Your task to perform on an android device: open app "Roku - Official Remote Control" Image 0: 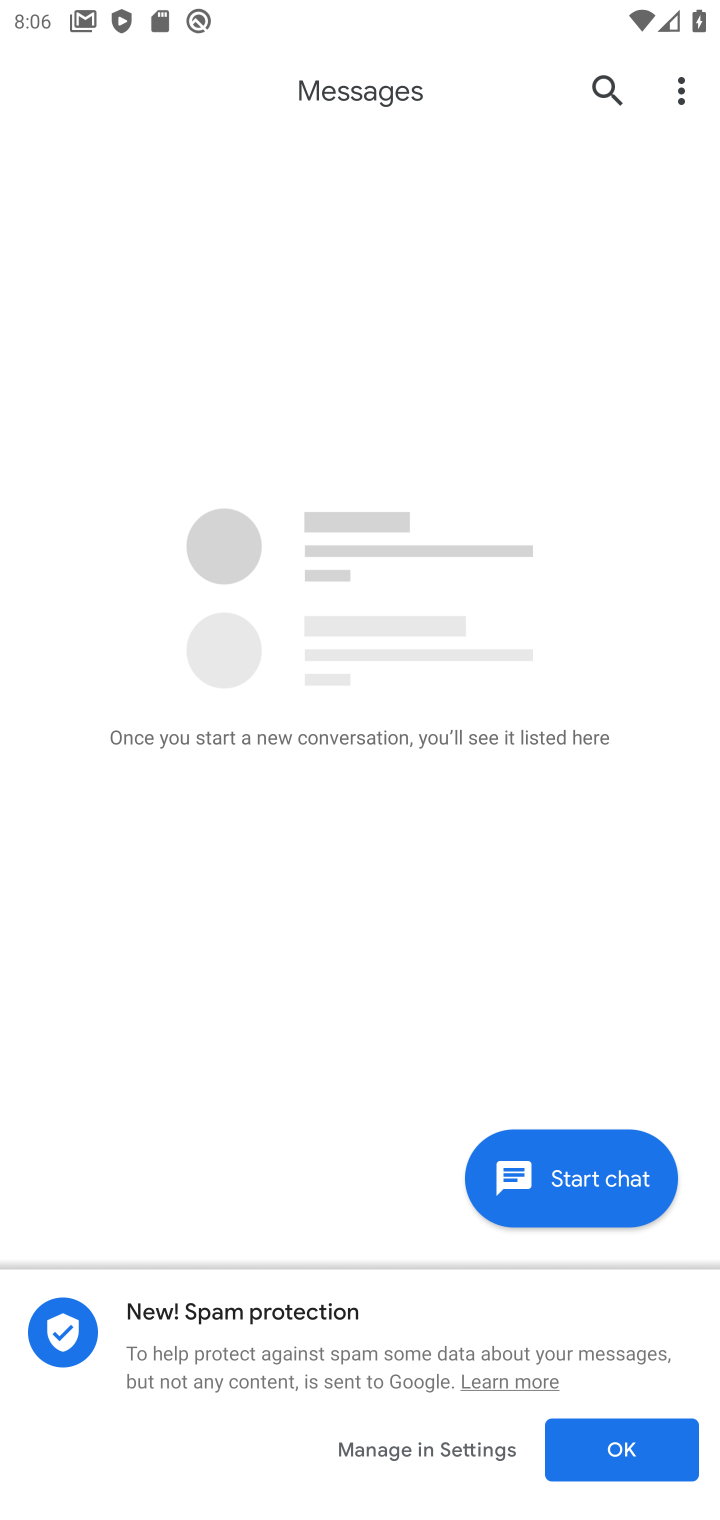
Step 0: press home button
Your task to perform on an android device: open app "Roku - Official Remote Control" Image 1: 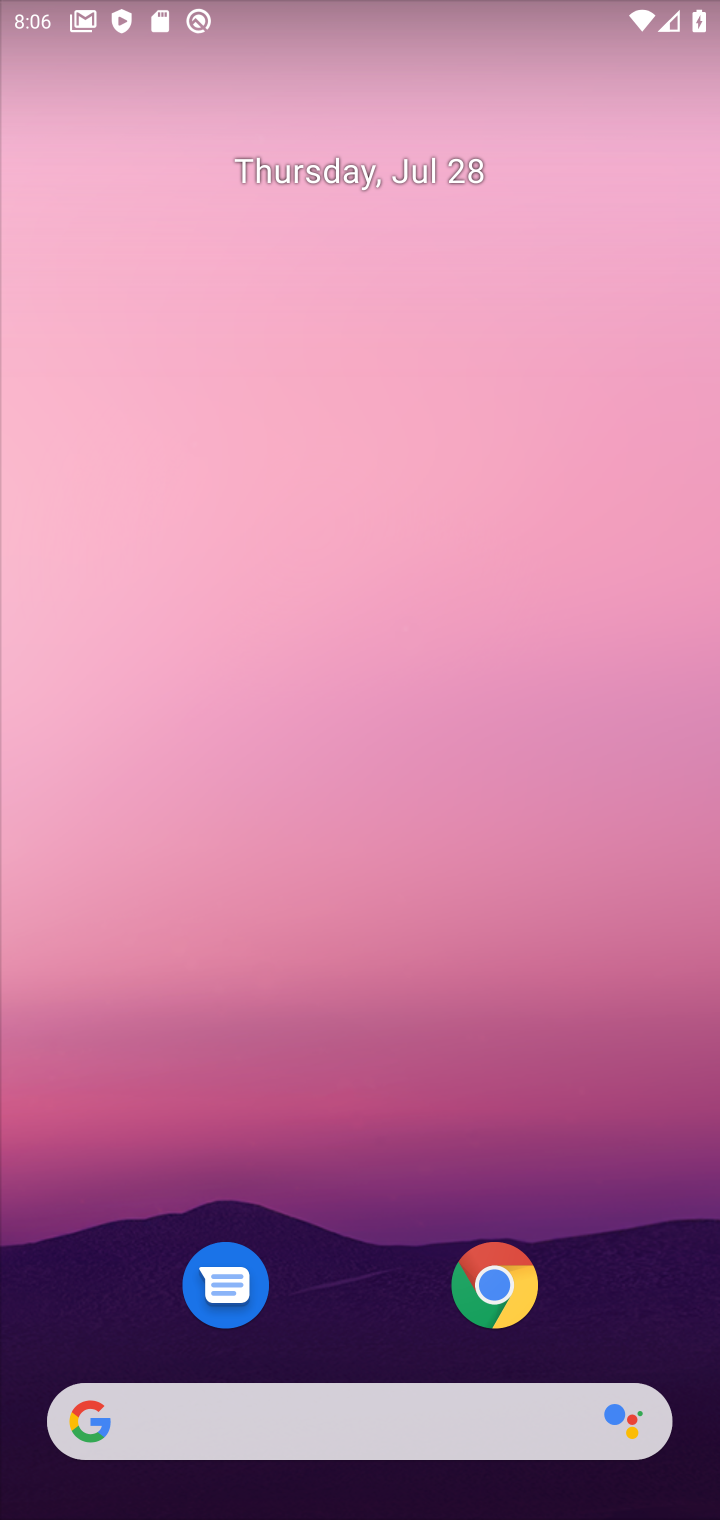
Step 1: drag from (388, 1448) to (348, 464)
Your task to perform on an android device: open app "Roku - Official Remote Control" Image 2: 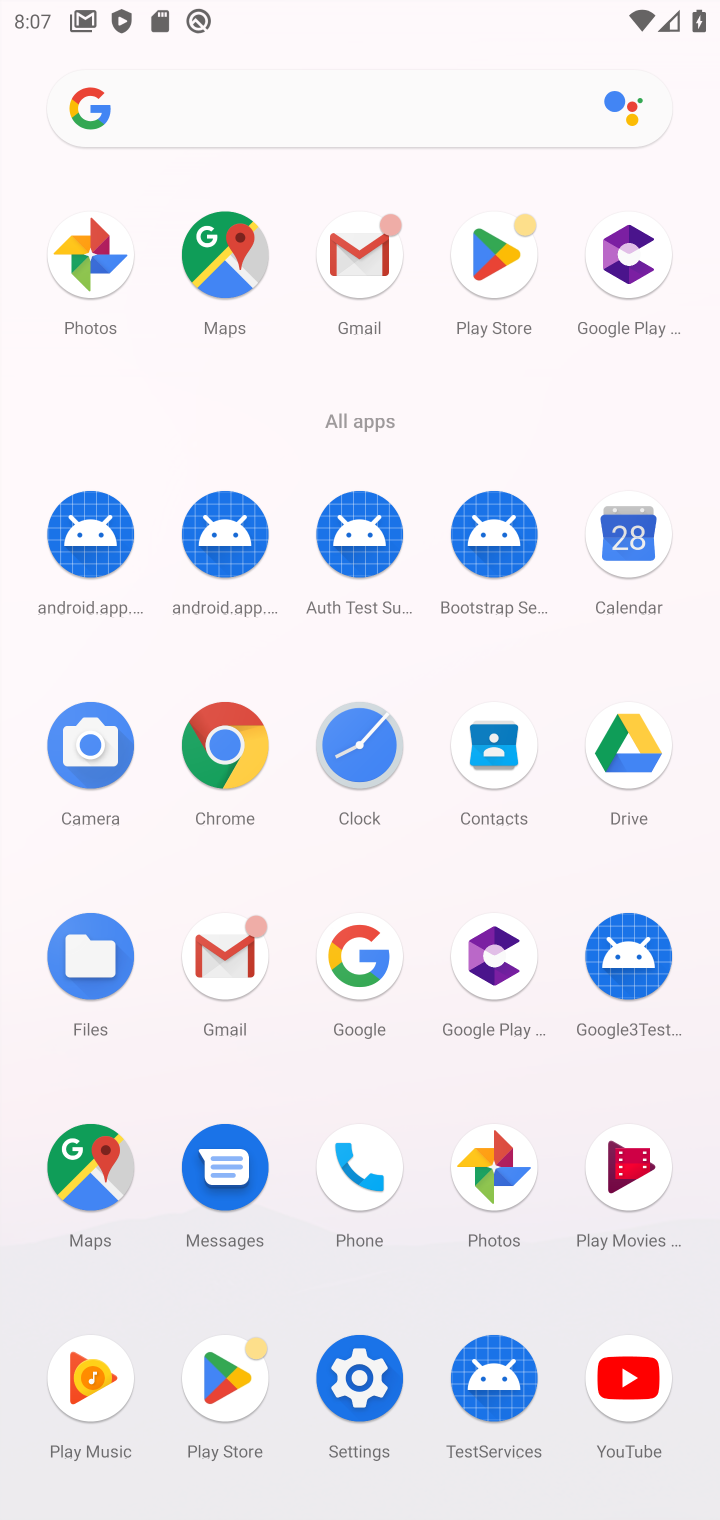
Step 2: click (213, 1359)
Your task to perform on an android device: open app "Roku - Official Remote Control" Image 3: 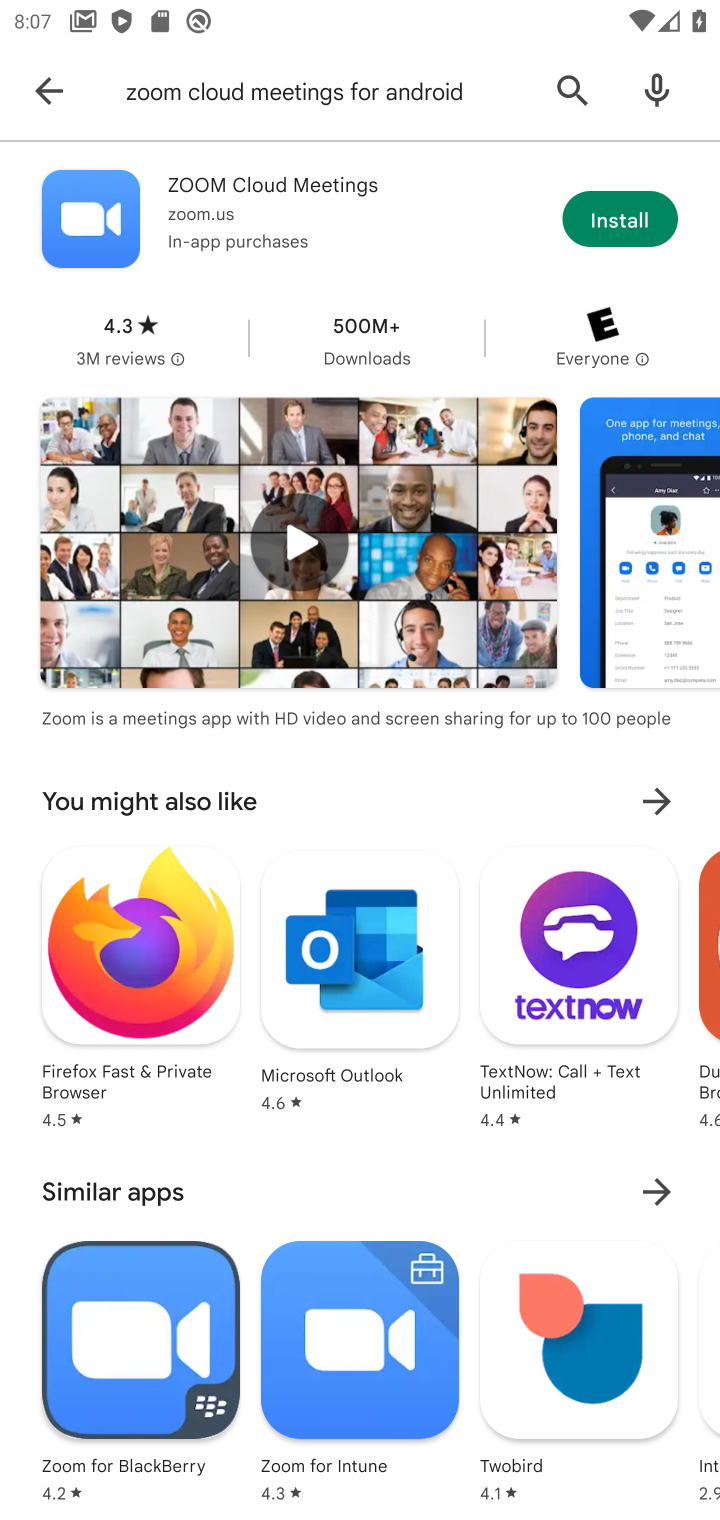
Step 3: click (566, 89)
Your task to perform on an android device: open app "Roku - Official Remote Control" Image 4: 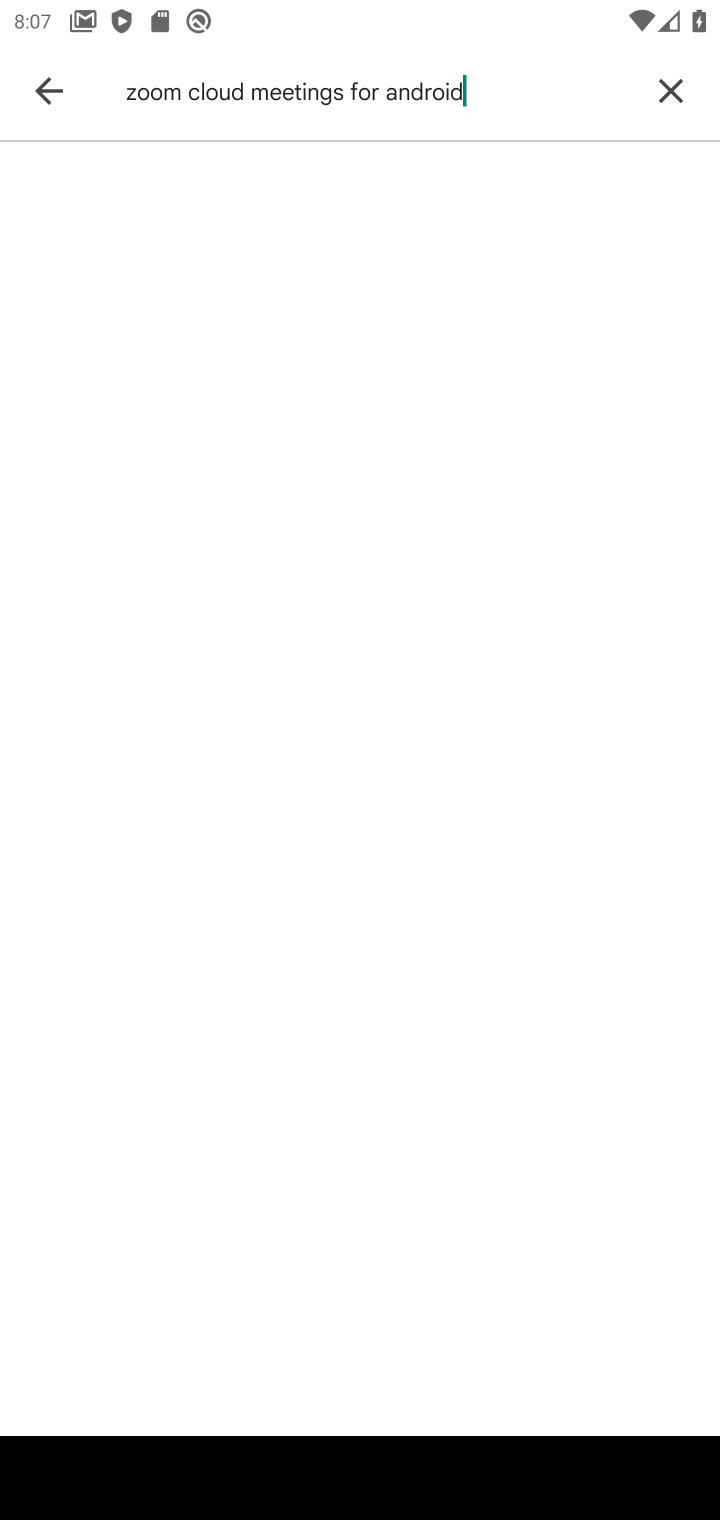
Step 4: click (680, 89)
Your task to perform on an android device: open app "Roku - Official Remote Control" Image 5: 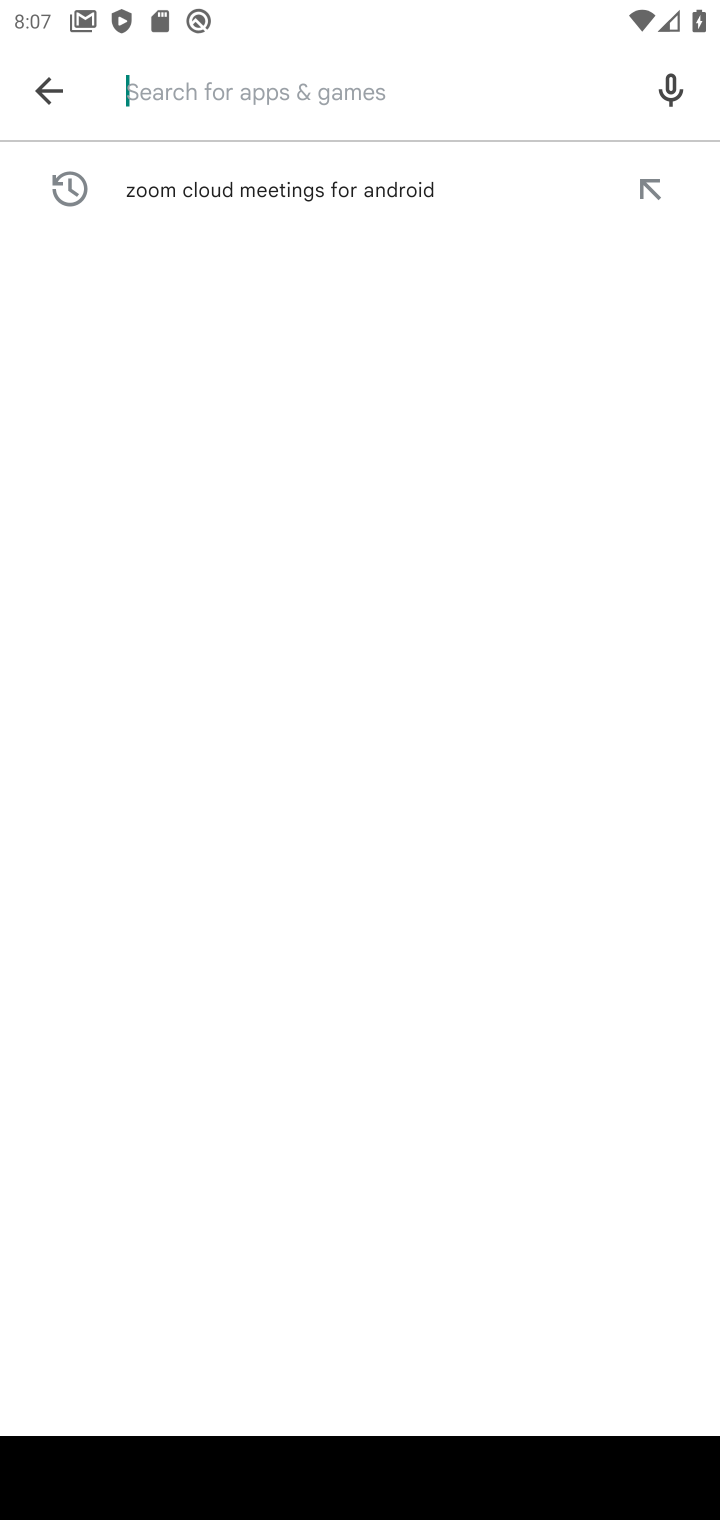
Step 5: type "Roku - Official Remote Control"
Your task to perform on an android device: open app "Roku - Official Remote Control" Image 6: 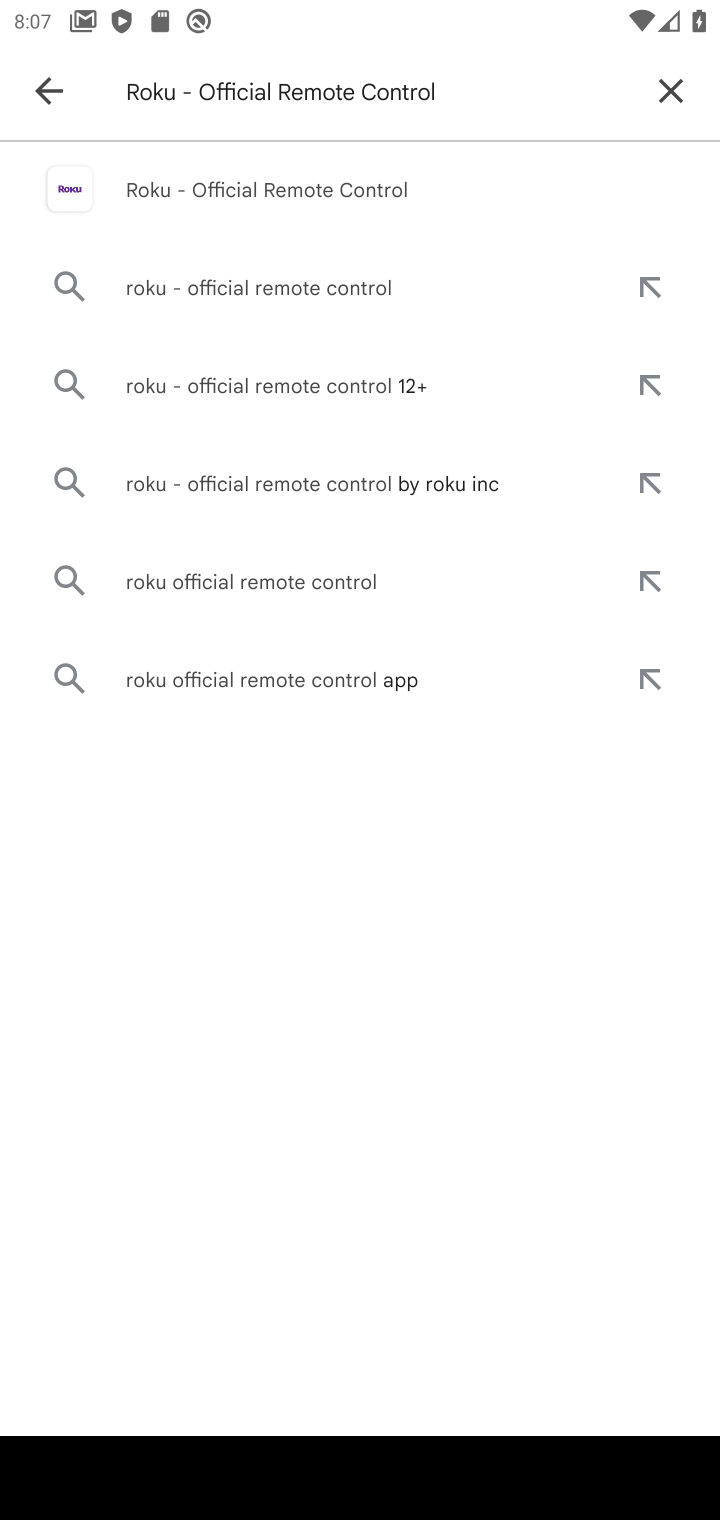
Step 6: click (250, 149)
Your task to perform on an android device: open app "Roku - Official Remote Control" Image 7: 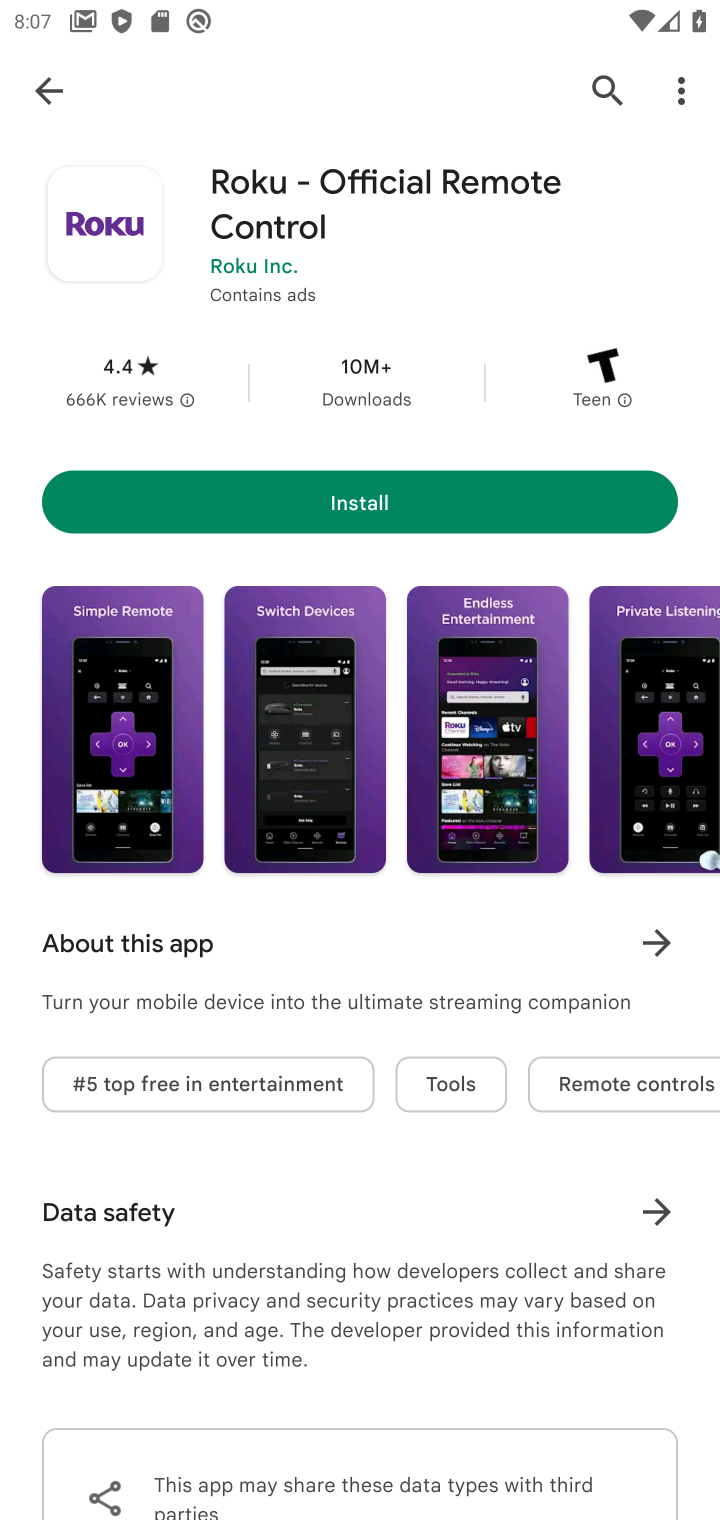
Step 7: task complete